Your task to perform on an android device: Go to Google Image 0: 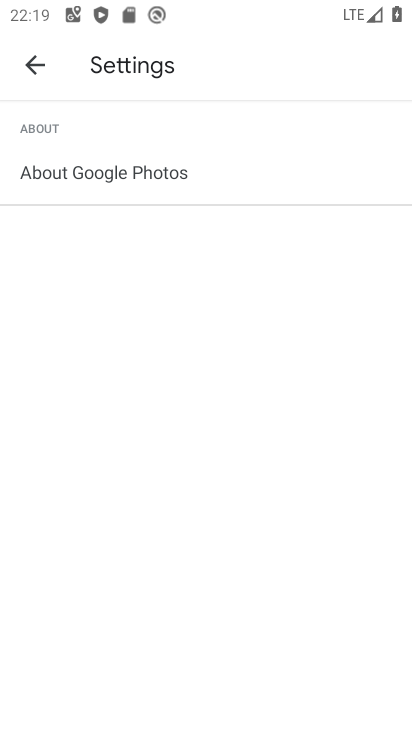
Step 0: press home button
Your task to perform on an android device: Go to Google Image 1: 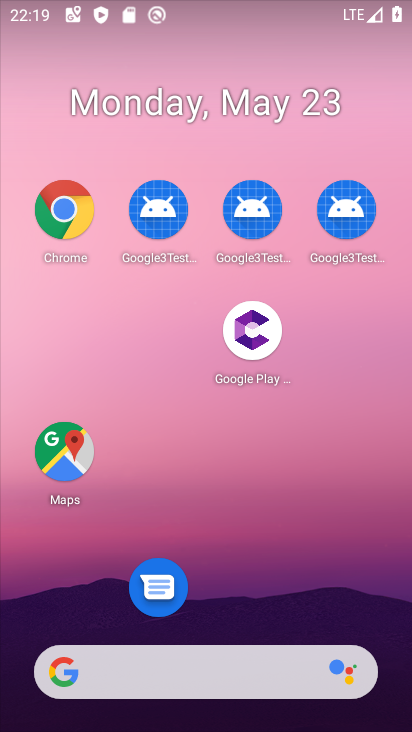
Step 1: drag from (227, 527) to (173, 139)
Your task to perform on an android device: Go to Google Image 2: 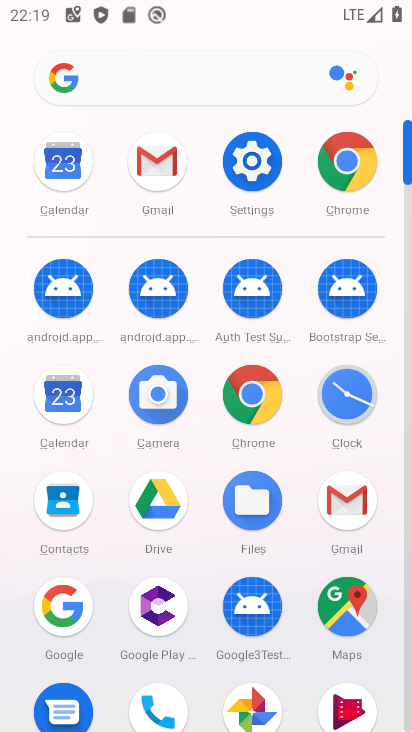
Step 2: click (67, 607)
Your task to perform on an android device: Go to Google Image 3: 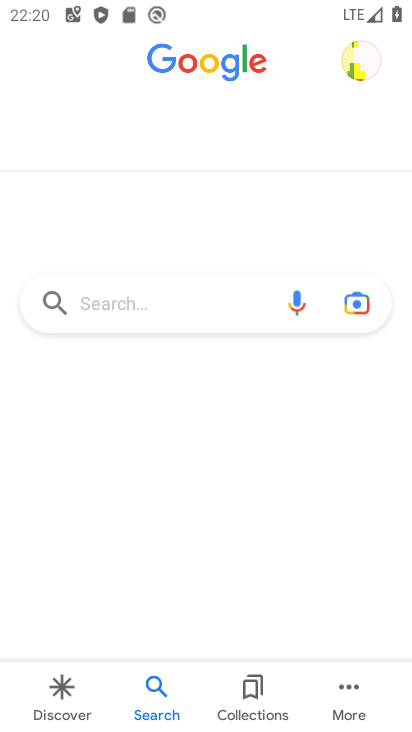
Step 3: task complete